Your task to perform on an android device: Toggle the flashlight Image 0: 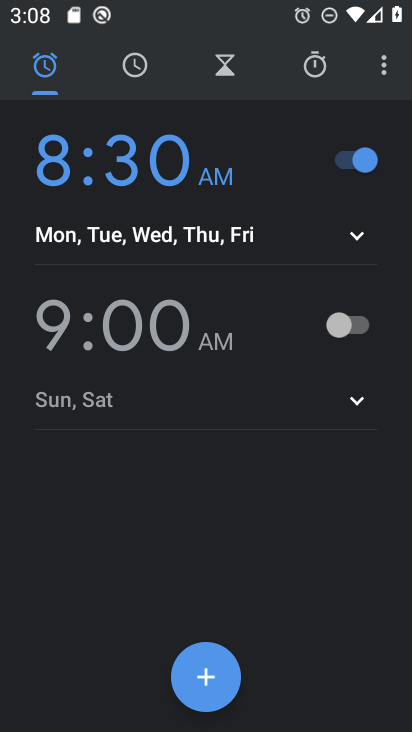
Step 0: drag from (233, 595) to (228, 292)
Your task to perform on an android device: Toggle the flashlight Image 1: 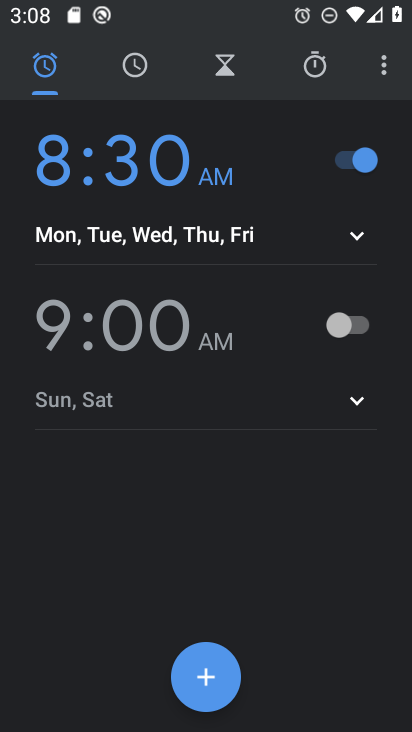
Step 1: press home button
Your task to perform on an android device: Toggle the flashlight Image 2: 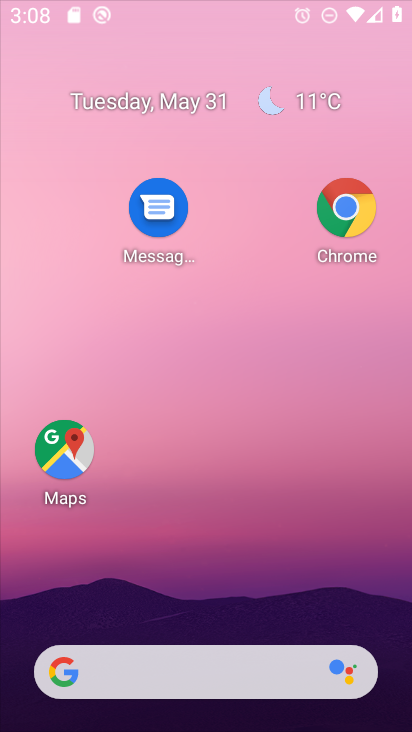
Step 2: drag from (242, 590) to (176, 0)
Your task to perform on an android device: Toggle the flashlight Image 3: 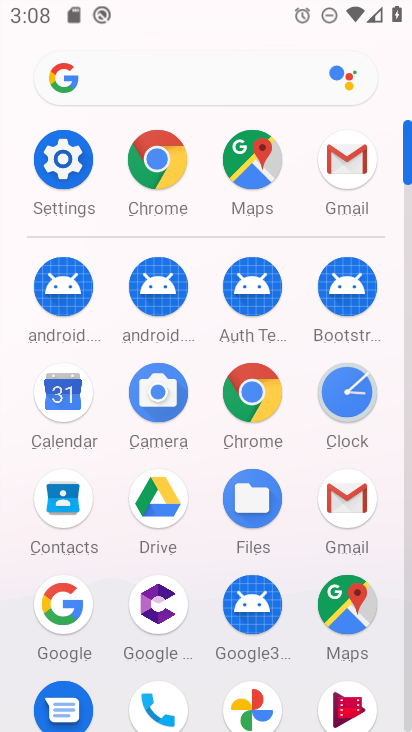
Step 3: click (47, 178)
Your task to perform on an android device: Toggle the flashlight Image 4: 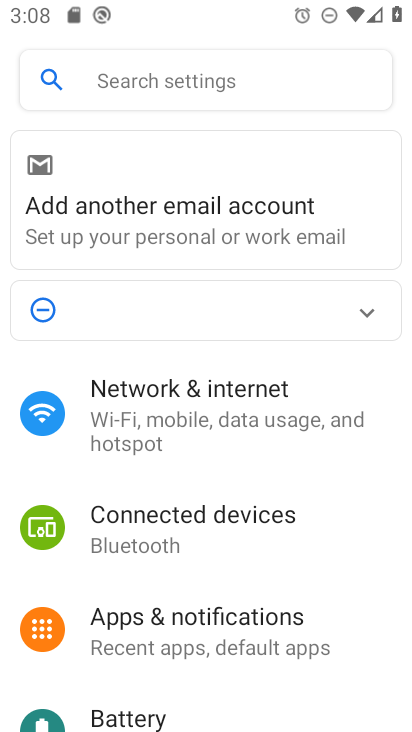
Step 4: click (150, 73)
Your task to perform on an android device: Toggle the flashlight Image 5: 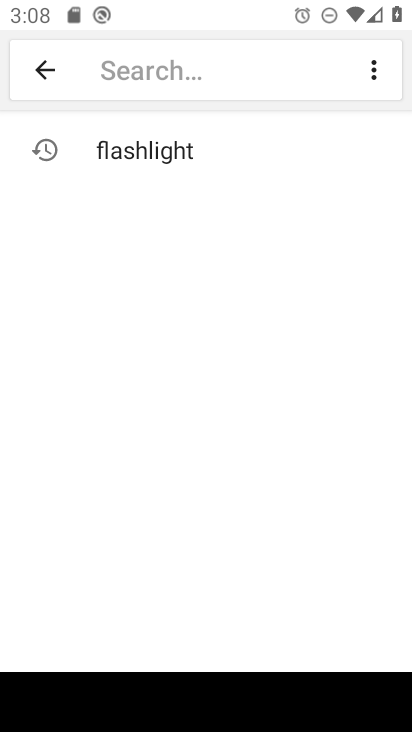
Step 5: click (152, 153)
Your task to perform on an android device: Toggle the flashlight Image 6: 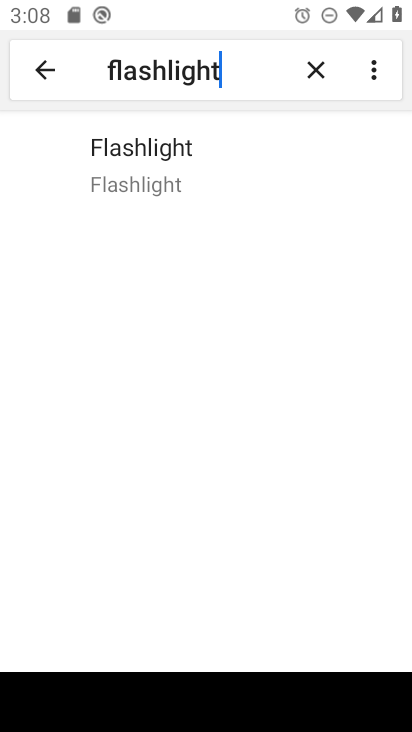
Step 6: click (153, 150)
Your task to perform on an android device: Toggle the flashlight Image 7: 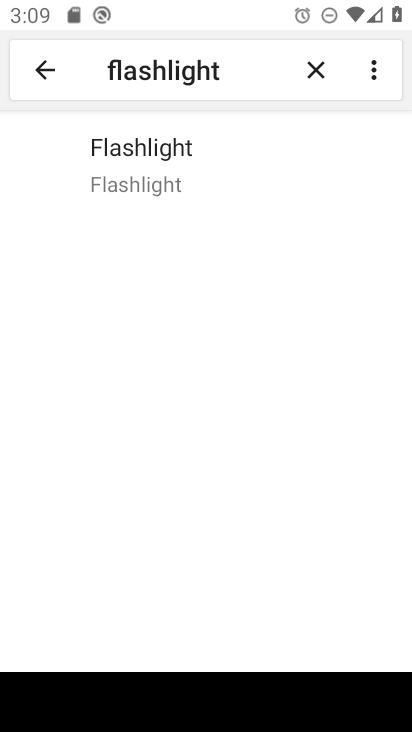
Step 7: click (225, 150)
Your task to perform on an android device: Toggle the flashlight Image 8: 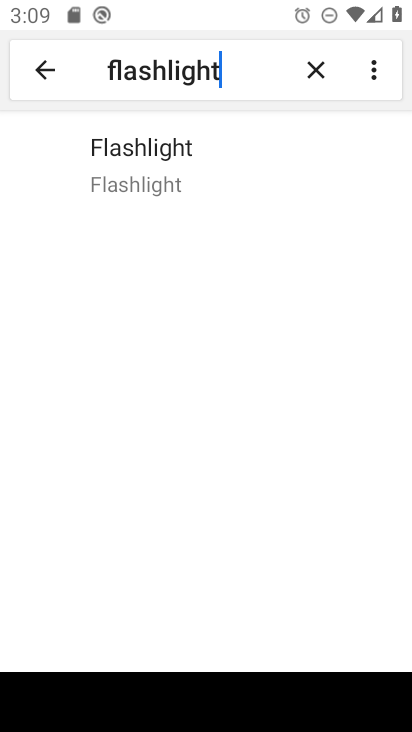
Step 8: click (224, 191)
Your task to perform on an android device: Toggle the flashlight Image 9: 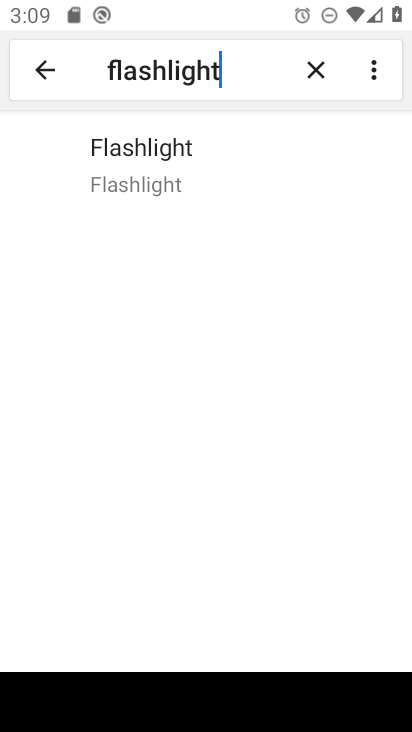
Step 9: task complete